Your task to perform on an android device: Go to calendar. Show me events next week Image 0: 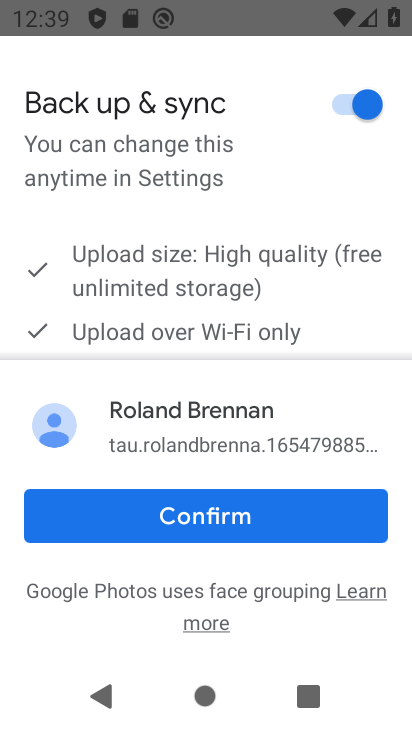
Step 0: press back button
Your task to perform on an android device: Go to calendar. Show me events next week Image 1: 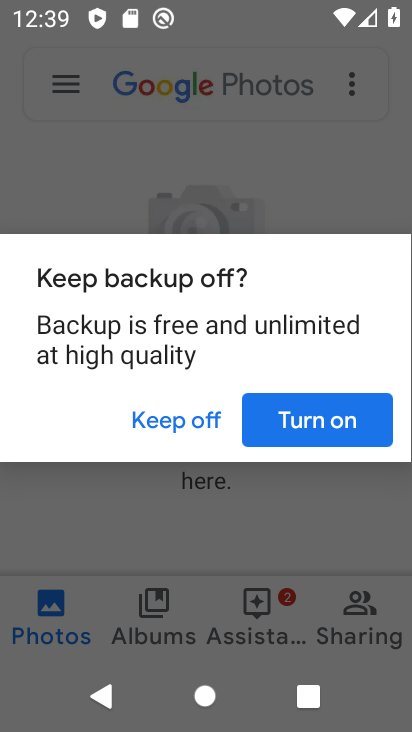
Step 1: press back button
Your task to perform on an android device: Go to calendar. Show me events next week Image 2: 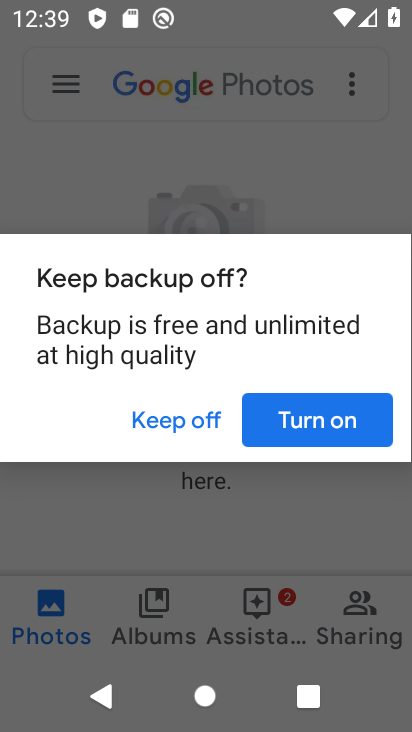
Step 2: press home button
Your task to perform on an android device: Go to calendar. Show me events next week Image 3: 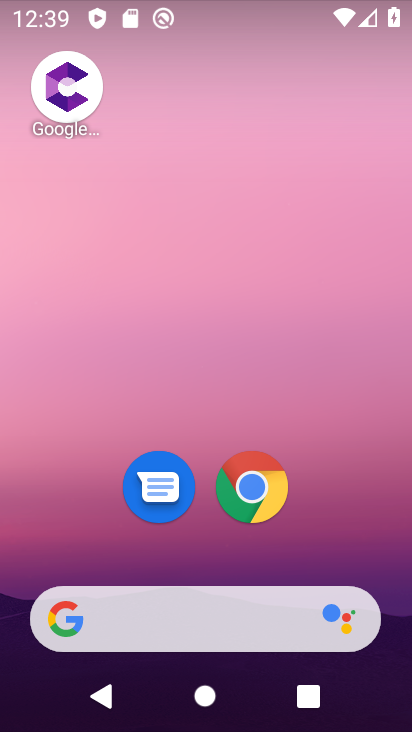
Step 3: drag from (116, 565) to (211, 1)
Your task to perform on an android device: Go to calendar. Show me events next week Image 4: 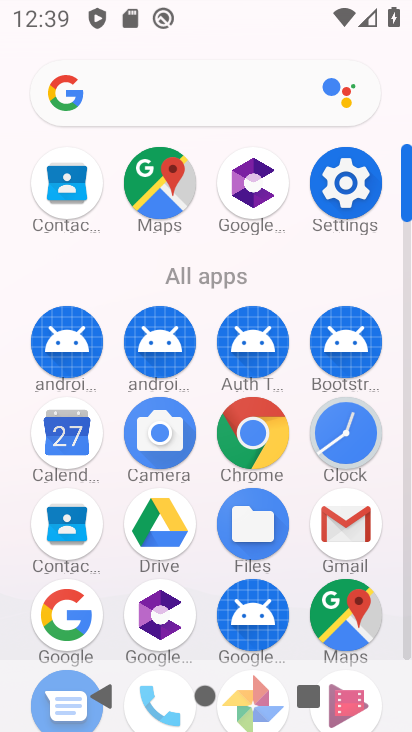
Step 4: click (67, 453)
Your task to perform on an android device: Go to calendar. Show me events next week Image 5: 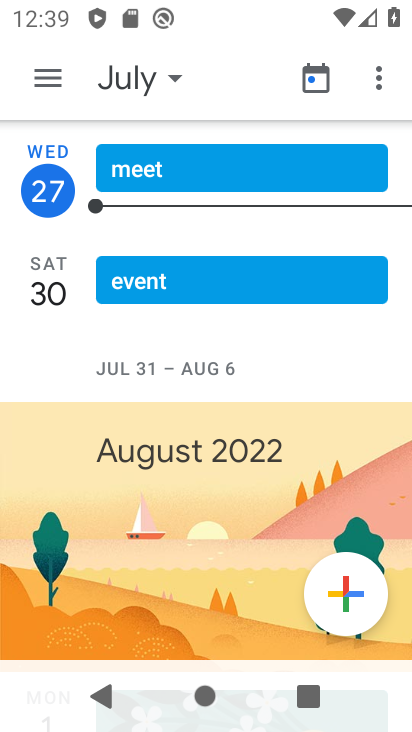
Step 5: click (150, 78)
Your task to perform on an android device: Go to calendar. Show me events next week Image 6: 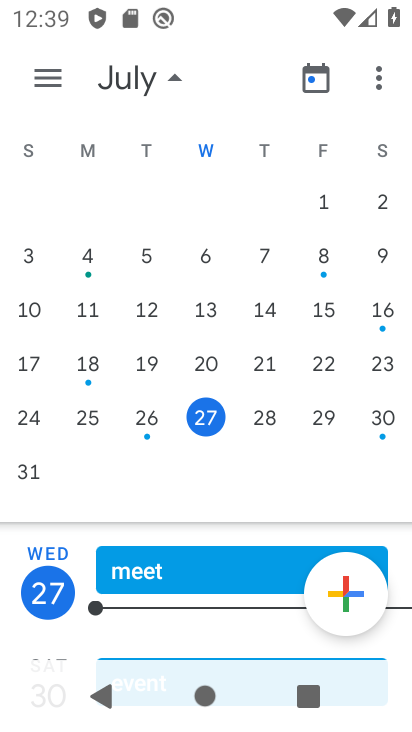
Step 6: drag from (378, 367) to (11, 356)
Your task to perform on an android device: Go to calendar. Show me events next week Image 7: 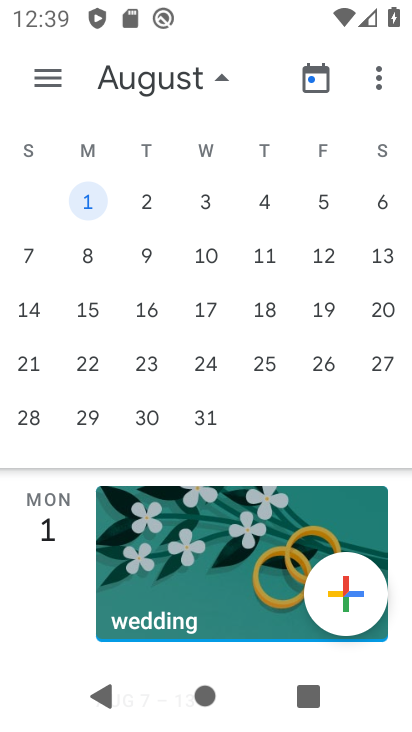
Step 7: click (95, 196)
Your task to perform on an android device: Go to calendar. Show me events next week Image 8: 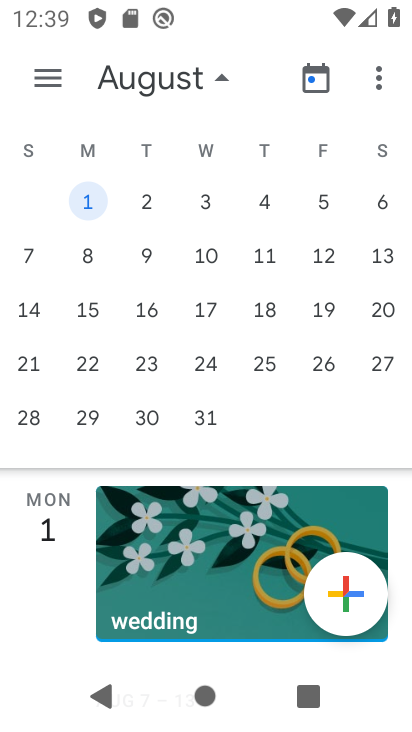
Step 8: task complete